Your task to perform on an android device: toggle javascript in the chrome app Image 0: 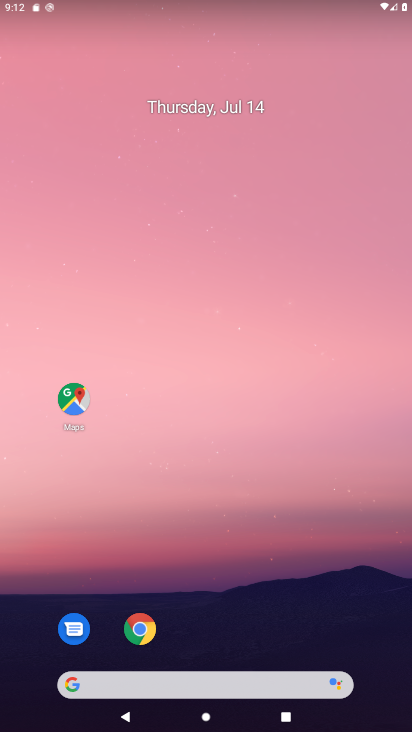
Step 0: drag from (249, 505) to (238, 41)
Your task to perform on an android device: toggle javascript in the chrome app Image 1: 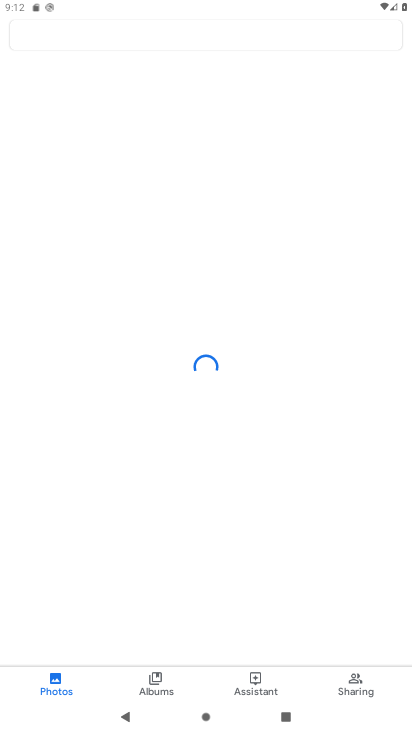
Step 1: press home button
Your task to perform on an android device: toggle javascript in the chrome app Image 2: 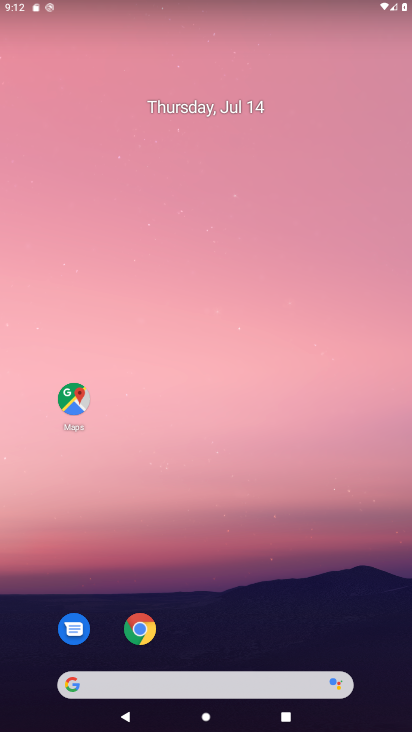
Step 2: drag from (250, 604) to (247, 147)
Your task to perform on an android device: toggle javascript in the chrome app Image 3: 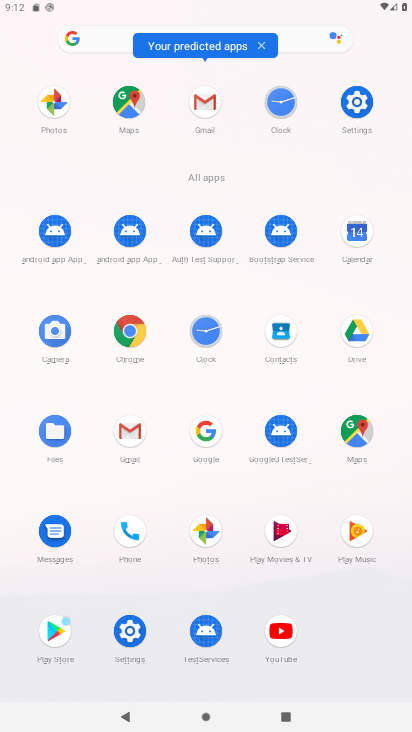
Step 3: click (124, 333)
Your task to perform on an android device: toggle javascript in the chrome app Image 4: 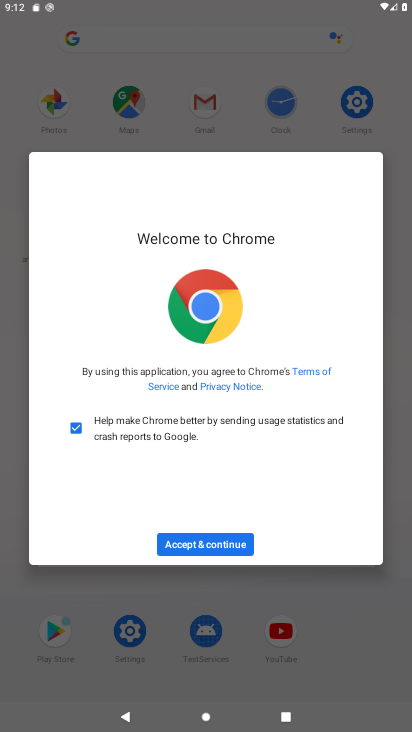
Step 4: click (213, 538)
Your task to perform on an android device: toggle javascript in the chrome app Image 5: 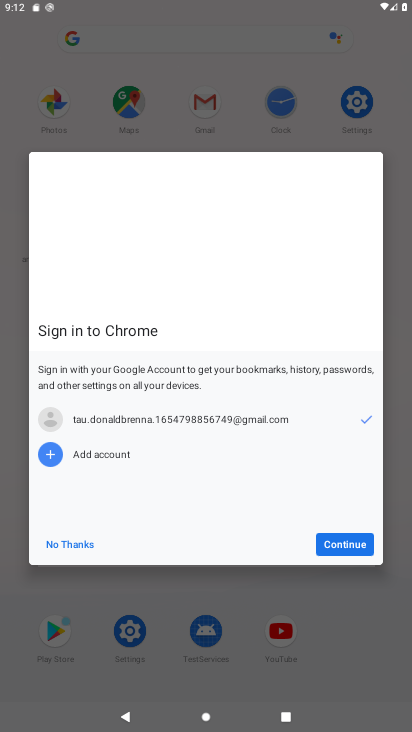
Step 5: click (337, 538)
Your task to perform on an android device: toggle javascript in the chrome app Image 6: 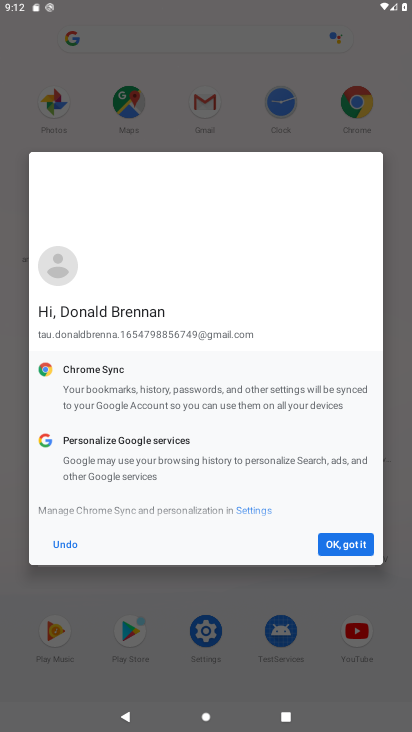
Step 6: click (354, 545)
Your task to perform on an android device: toggle javascript in the chrome app Image 7: 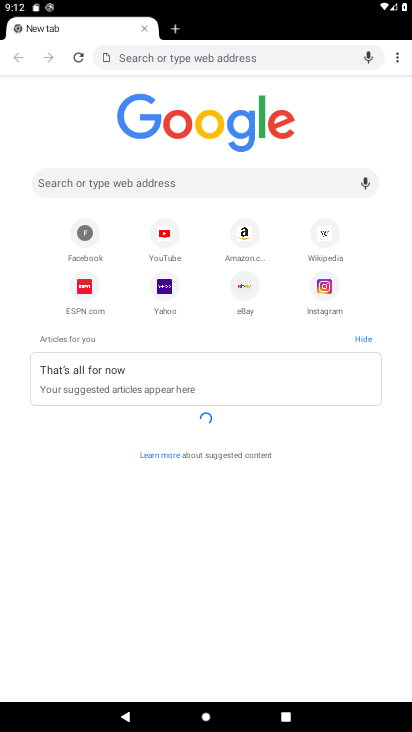
Step 7: drag from (399, 63) to (299, 264)
Your task to perform on an android device: toggle javascript in the chrome app Image 8: 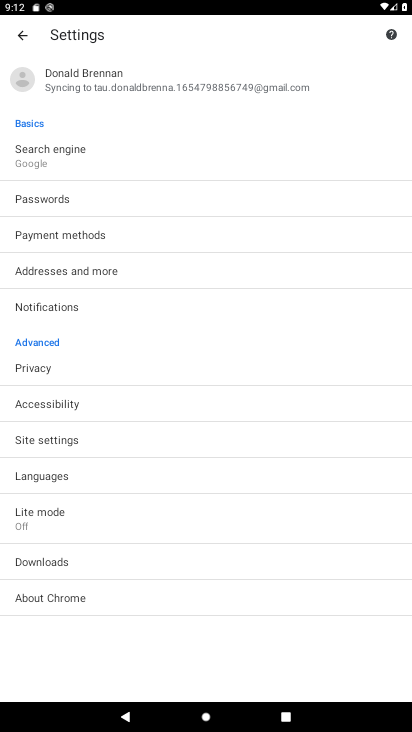
Step 8: click (43, 437)
Your task to perform on an android device: toggle javascript in the chrome app Image 9: 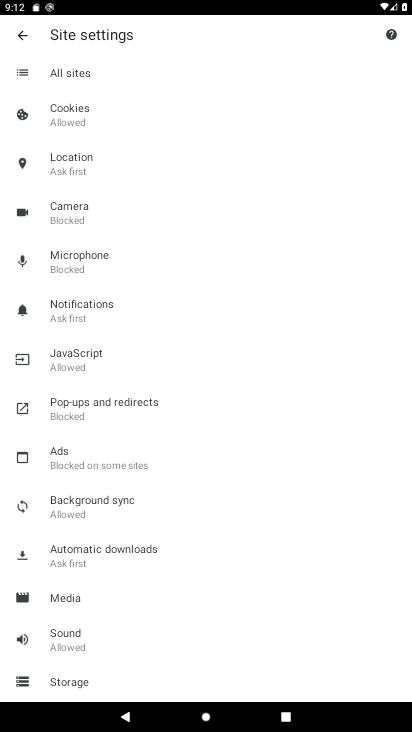
Step 9: click (74, 357)
Your task to perform on an android device: toggle javascript in the chrome app Image 10: 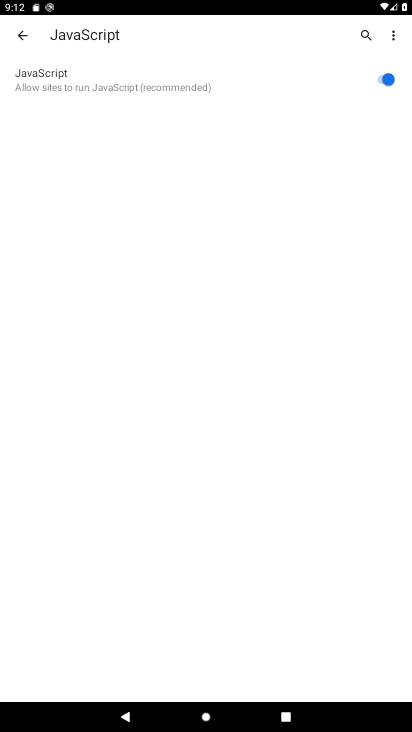
Step 10: click (283, 79)
Your task to perform on an android device: toggle javascript in the chrome app Image 11: 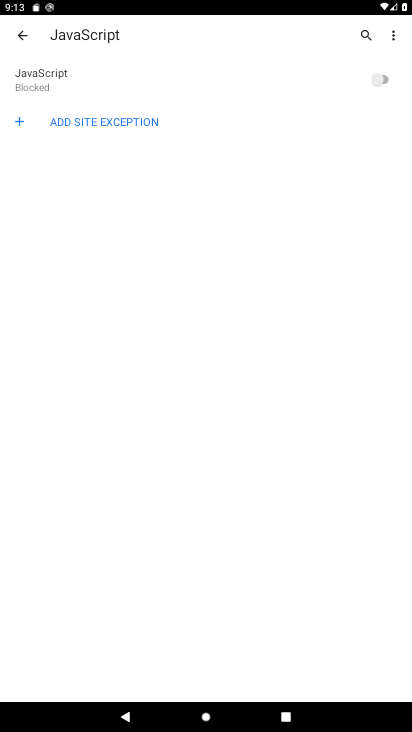
Step 11: task complete